Your task to perform on an android device: Add bose soundlink mini to the cart on costco.com, then select checkout. Image 0: 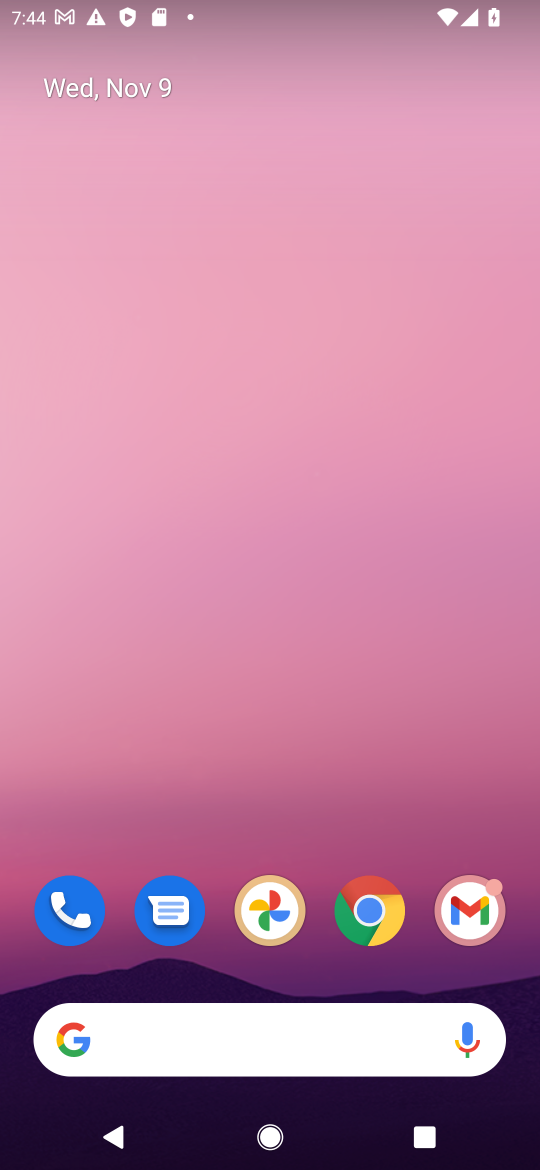
Step 0: click (376, 913)
Your task to perform on an android device: Add bose soundlink mini to the cart on costco.com, then select checkout. Image 1: 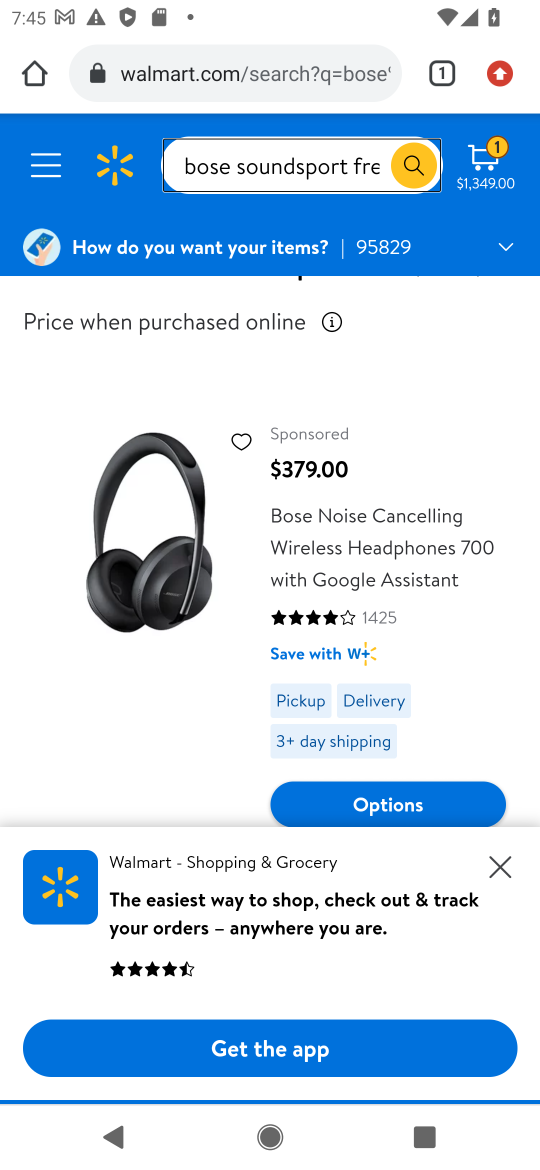
Step 1: click (202, 78)
Your task to perform on an android device: Add bose soundlink mini to the cart on costco.com, then select checkout. Image 2: 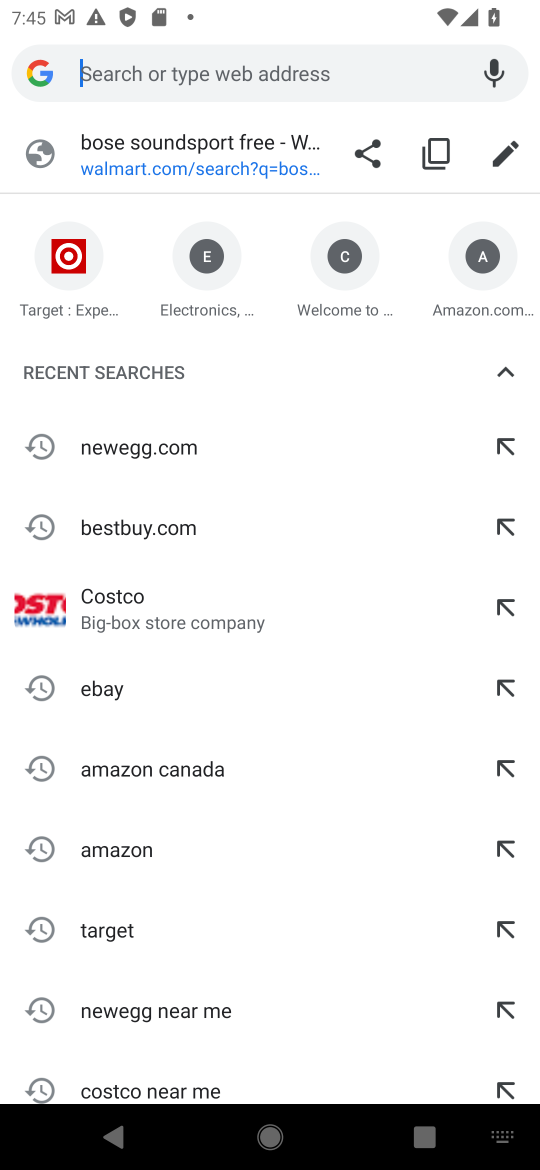
Step 2: click (119, 613)
Your task to perform on an android device: Add bose soundlink mini to the cart on costco.com, then select checkout. Image 3: 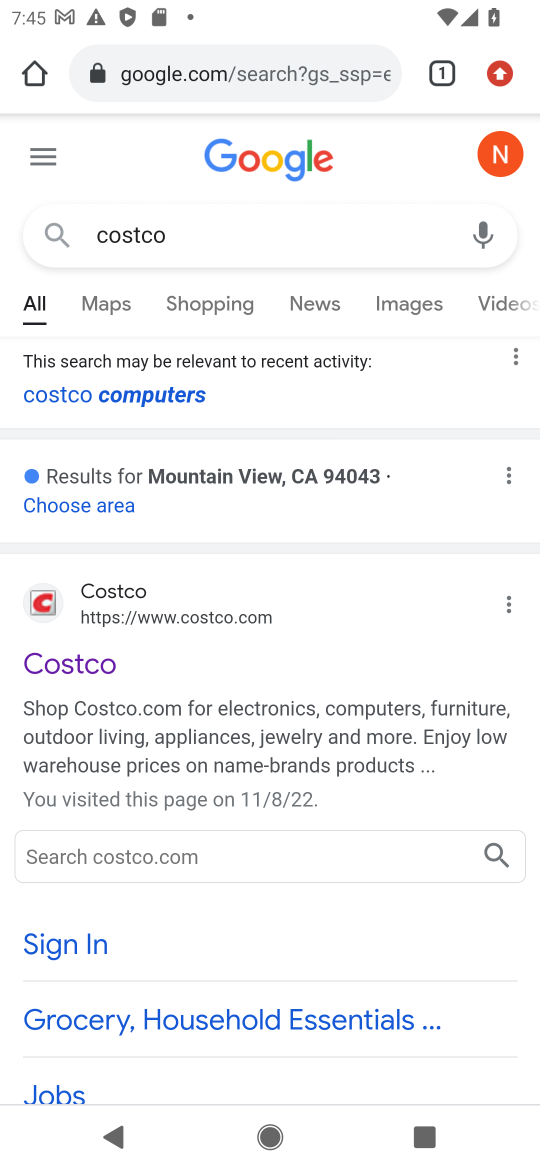
Step 3: click (88, 670)
Your task to perform on an android device: Add bose soundlink mini to the cart on costco.com, then select checkout. Image 4: 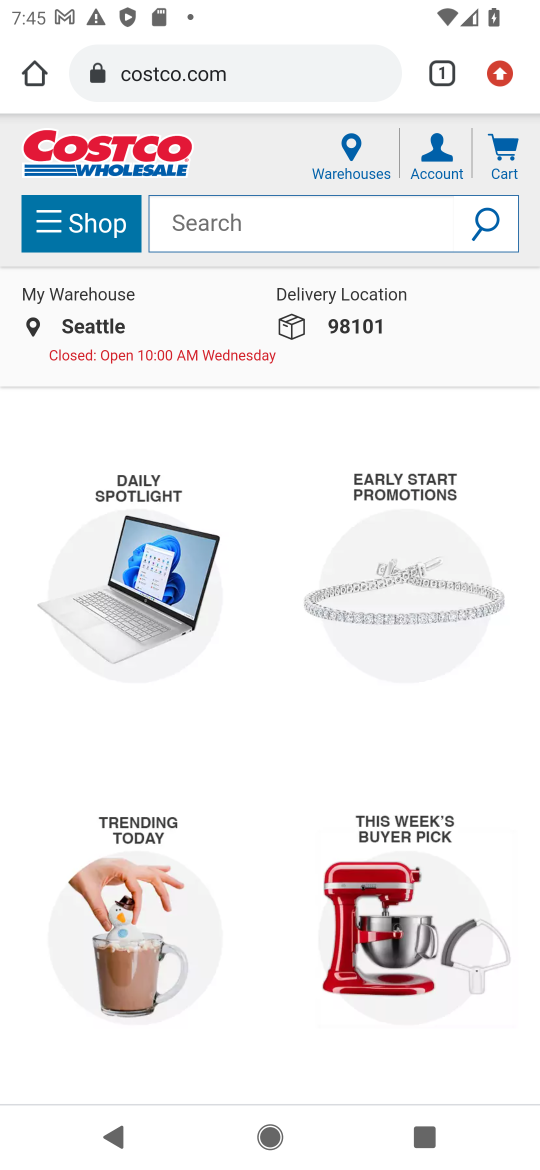
Step 4: click (219, 223)
Your task to perform on an android device: Add bose soundlink mini to the cart on costco.com, then select checkout. Image 5: 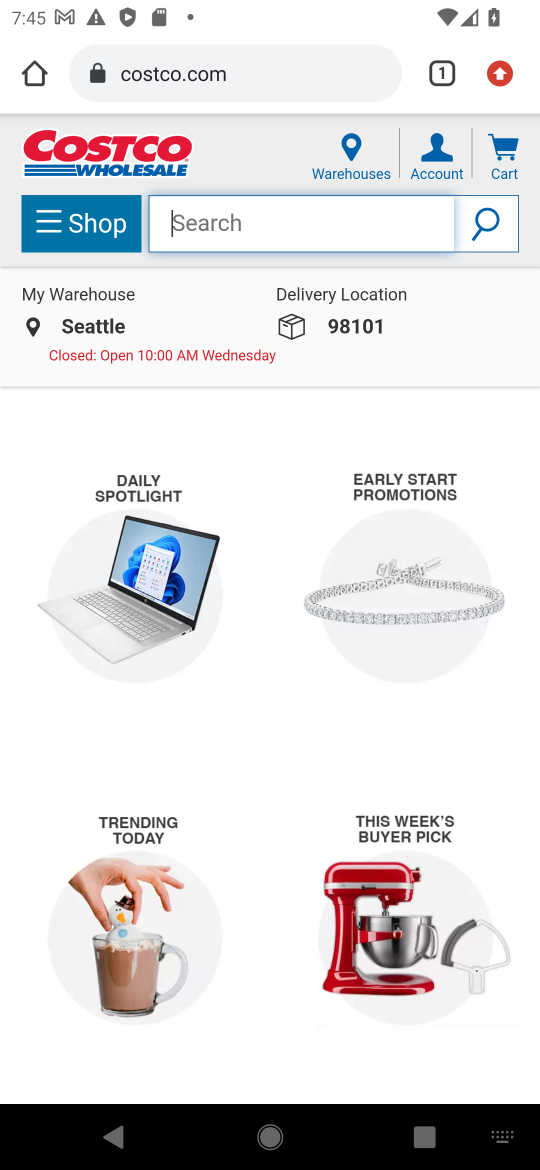
Step 5: type "bose soundlink mini"
Your task to perform on an android device: Add bose soundlink mini to the cart on costco.com, then select checkout. Image 6: 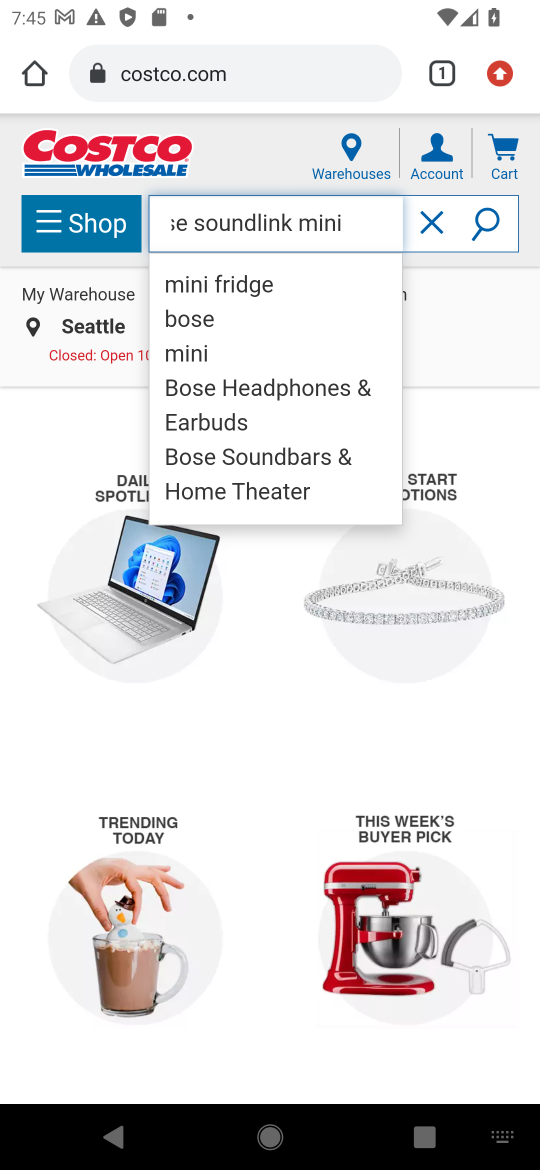
Step 6: click (481, 230)
Your task to perform on an android device: Add bose soundlink mini to the cart on costco.com, then select checkout. Image 7: 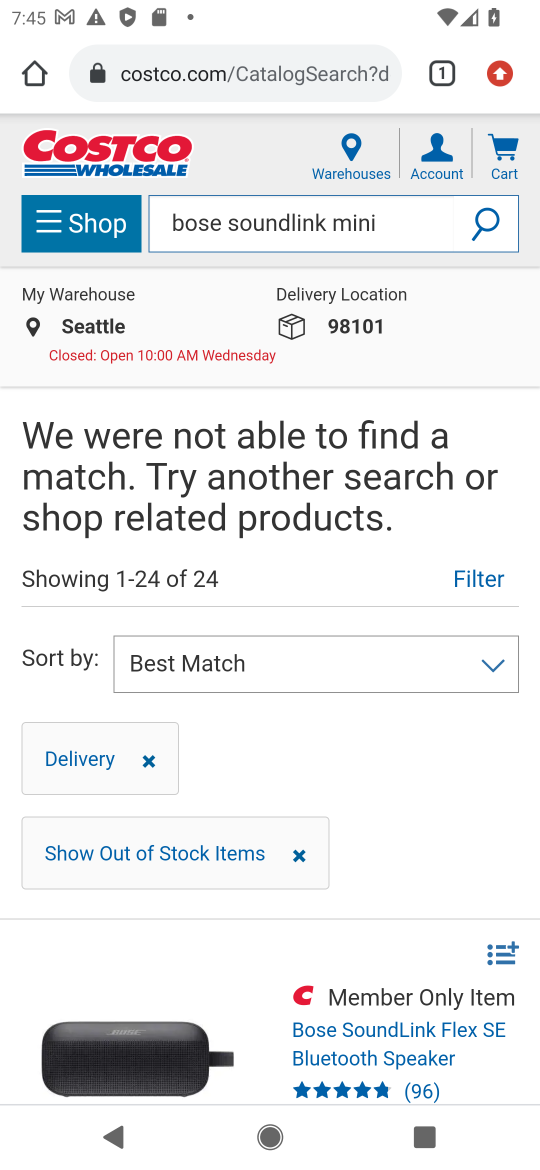
Step 7: task complete